Your task to perform on an android device: turn off location Image 0: 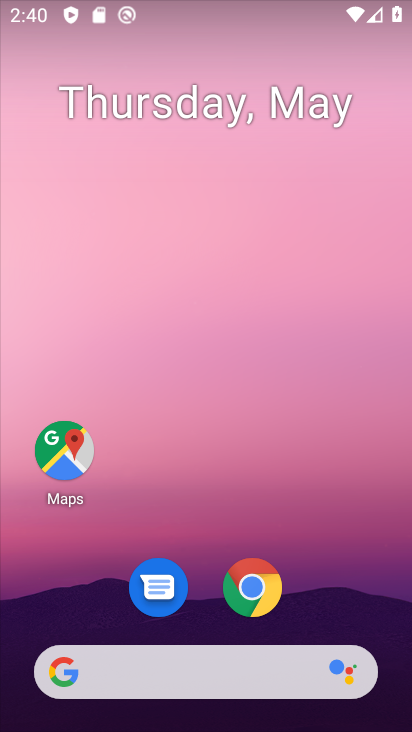
Step 0: drag from (344, 629) to (275, 38)
Your task to perform on an android device: turn off location Image 1: 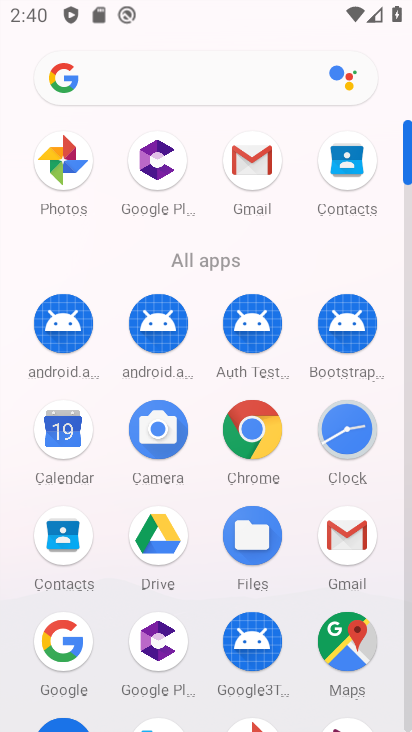
Step 1: drag from (228, 256) to (210, 1)
Your task to perform on an android device: turn off location Image 2: 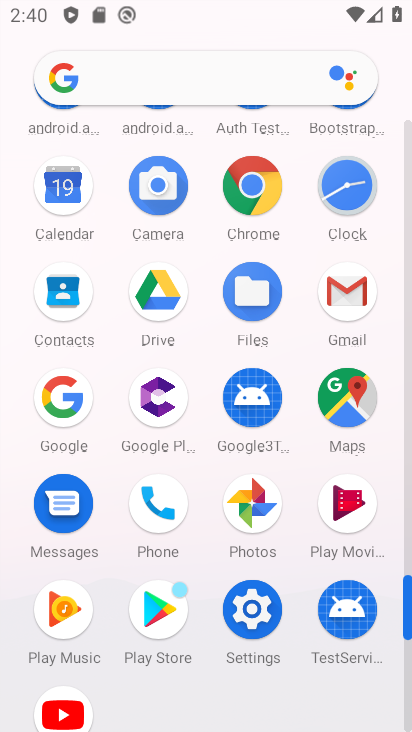
Step 2: click (257, 609)
Your task to perform on an android device: turn off location Image 3: 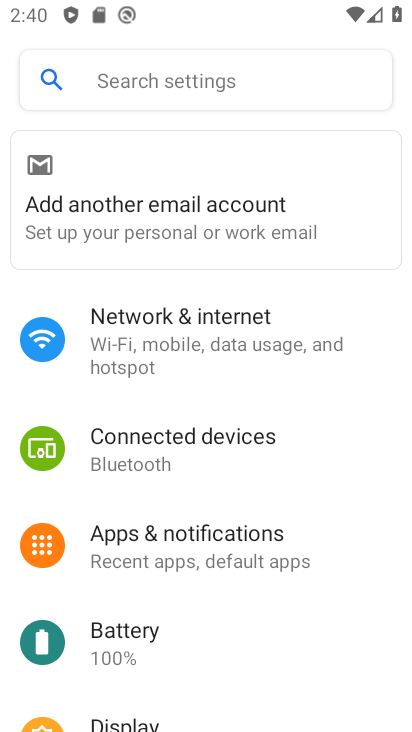
Step 3: drag from (218, 667) to (169, 345)
Your task to perform on an android device: turn off location Image 4: 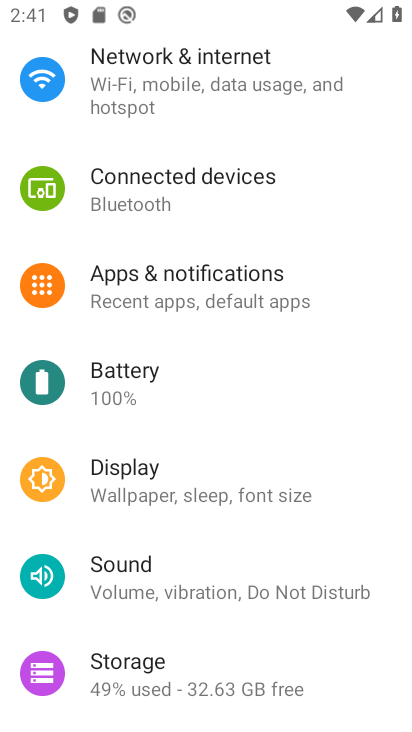
Step 4: drag from (173, 697) to (132, 427)
Your task to perform on an android device: turn off location Image 5: 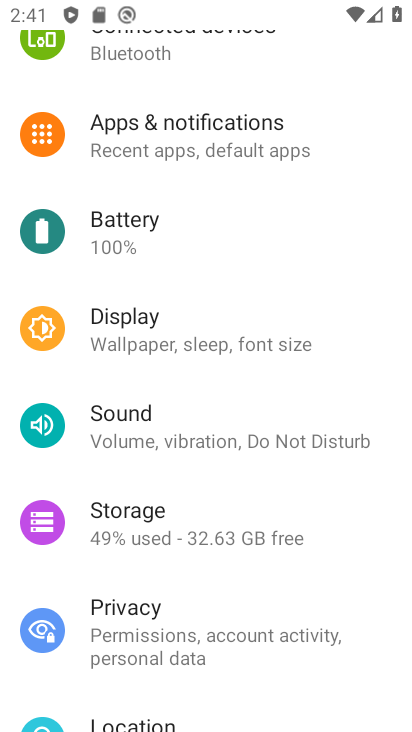
Step 5: click (178, 717)
Your task to perform on an android device: turn off location Image 6: 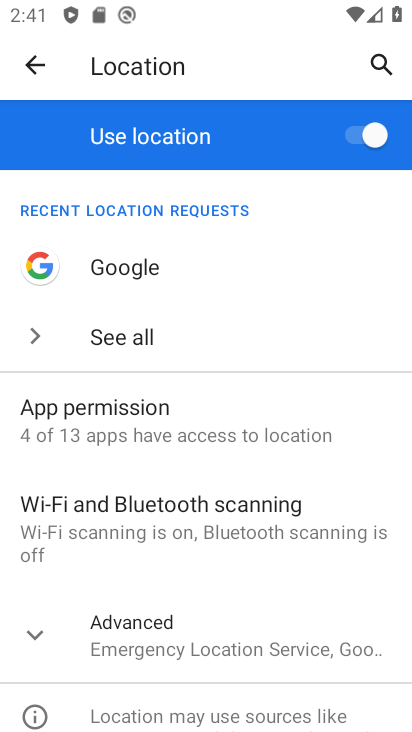
Step 6: click (359, 136)
Your task to perform on an android device: turn off location Image 7: 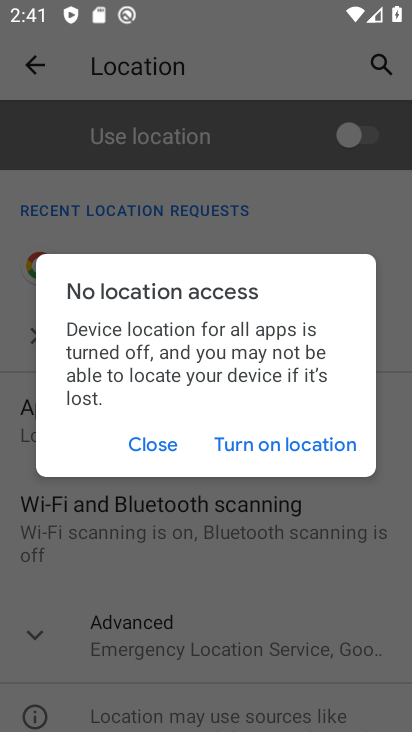
Step 7: task complete